Your task to perform on an android device: Open my contact list Image 0: 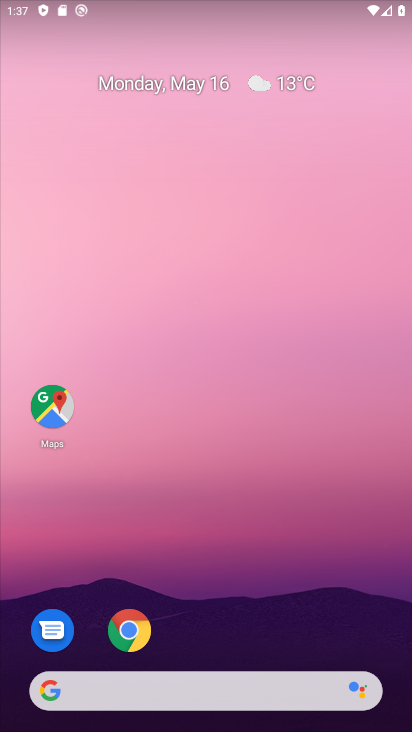
Step 0: drag from (170, 613) to (184, 25)
Your task to perform on an android device: Open my contact list Image 1: 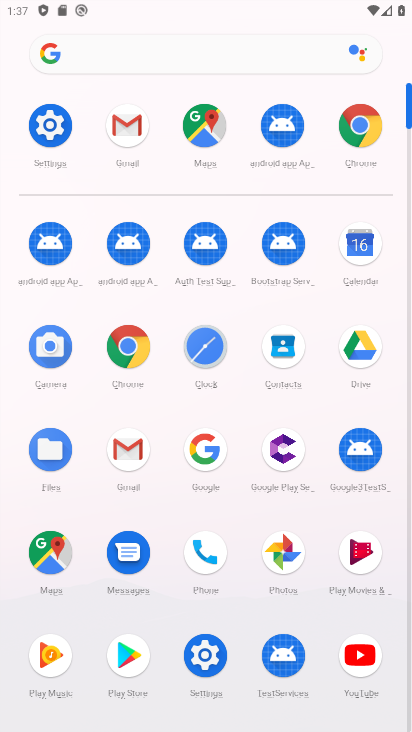
Step 1: click (274, 340)
Your task to perform on an android device: Open my contact list Image 2: 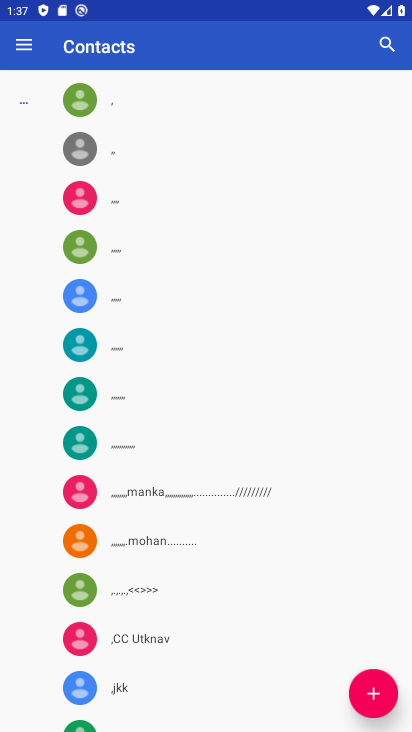
Step 2: task complete